Your task to perform on an android device: Open Chrome and go to settings Image 0: 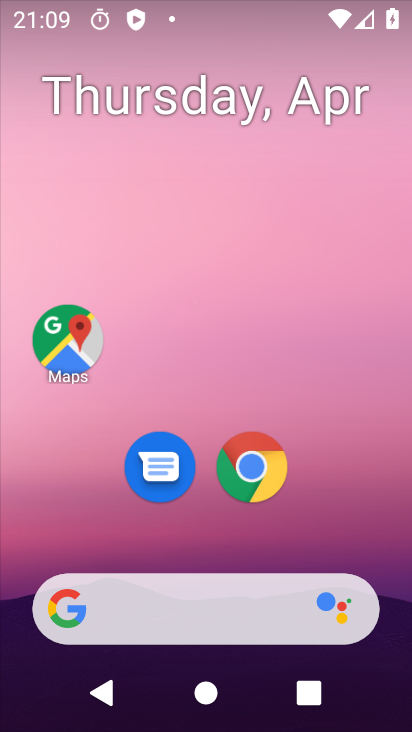
Step 0: drag from (186, 556) to (157, 24)
Your task to perform on an android device: Open Chrome and go to settings Image 1: 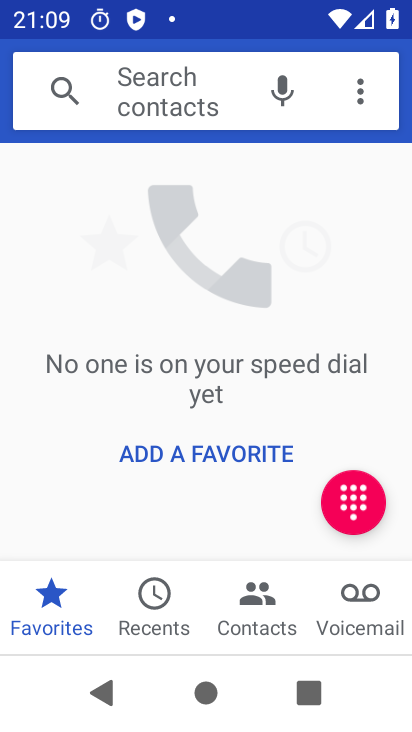
Step 1: press home button
Your task to perform on an android device: Open Chrome and go to settings Image 2: 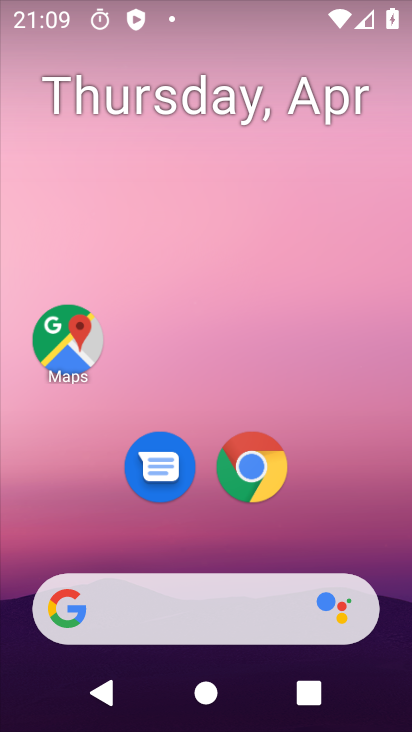
Step 2: click (252, 470)
Your task to perform on an android device: Open Chrome and go to settings Image 3: 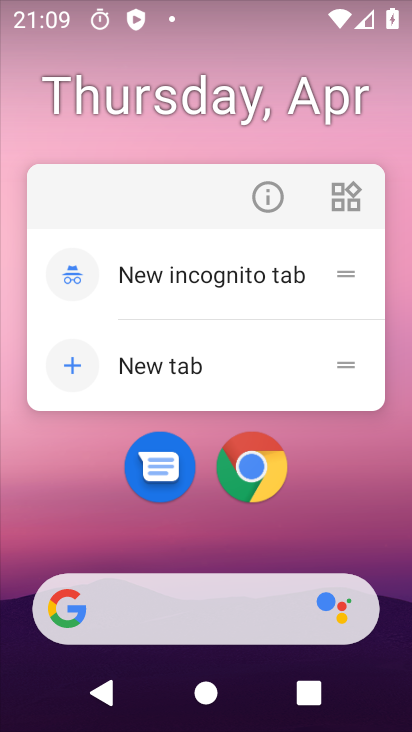
Step 3: click (252, 469)
Your task to perform on an android device: Open Chrome and go to settings Image 4: 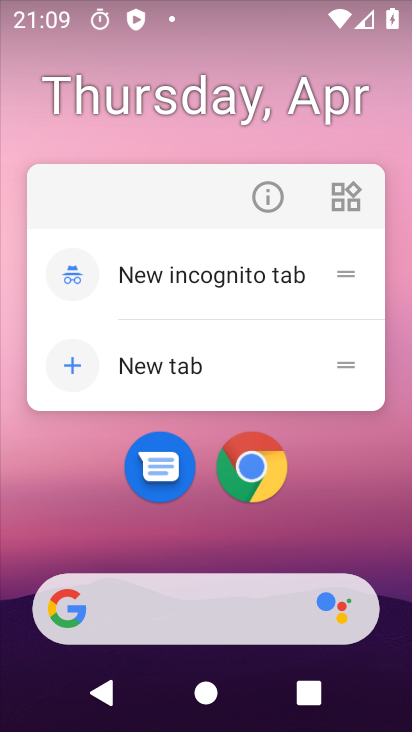
Step 4: click (266, 454)
Your task to perform on an android device: Open Chrome and go to settings Image 5: 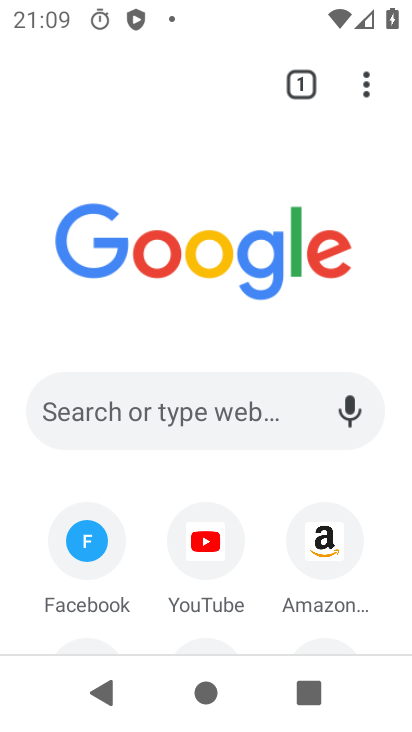
Step 5: click (359, 74)
Your task to perform on an android device: Open Chrome and go to settings Image 6: 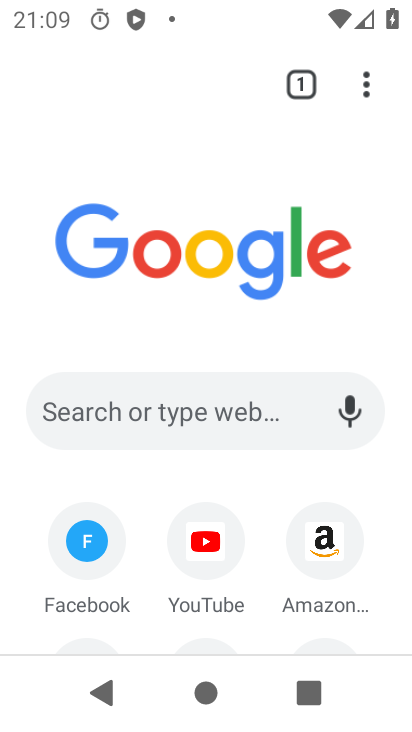
Step 6: task complete